Your task to perform on an android device: Open Google Chrome Image 0: 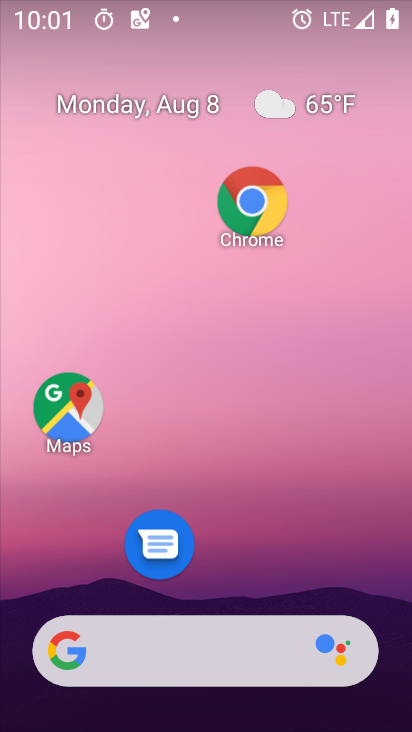
Step 0: drag from (218, 577) to (218, 27)
Your task to perform on an android device: Open Google Chrome Image 1: 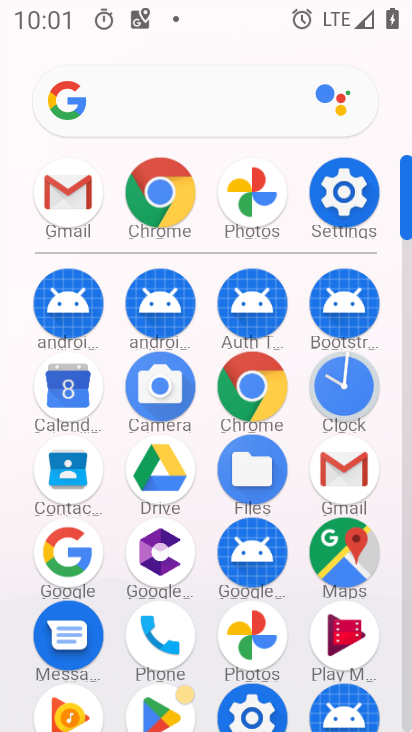
Step 1: click (247, 382)
Your task to perform on an android device: Open Google Chrome Image 2: 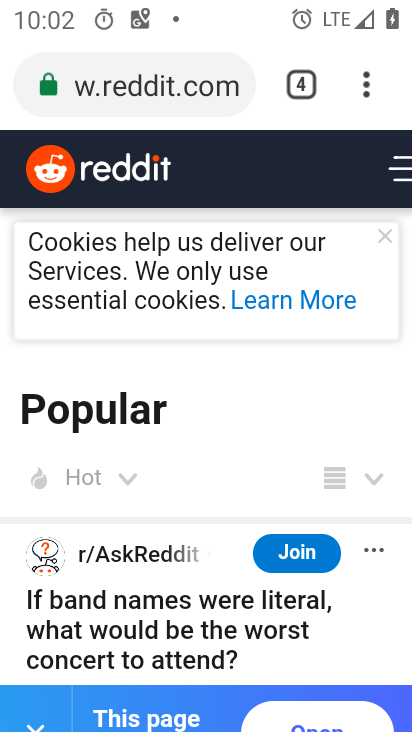
Step 2: drag from (202, 514) to (215, 287)
Your task to perform on an android device: Open Google Chrome Image 3: 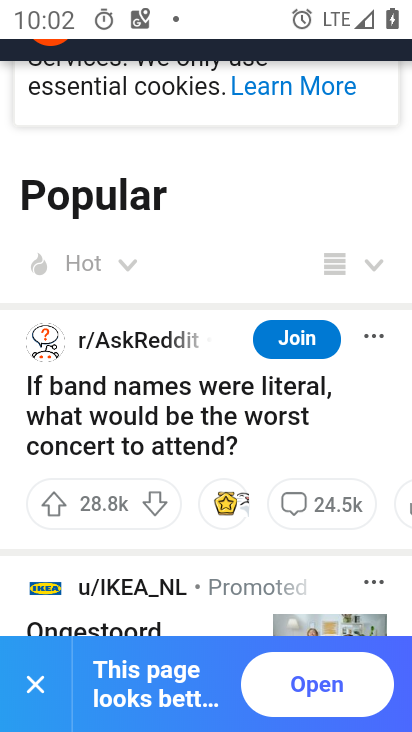
Step 3: drag from (311, 145) to (278, 482)
Your task to perform on an android device: Open Google Chrome Image 4: 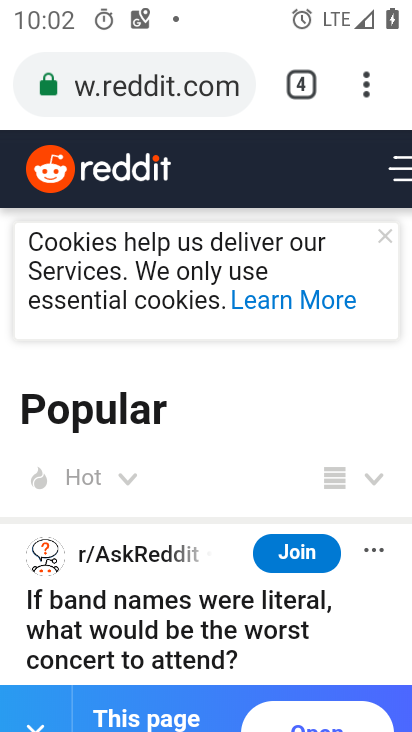
Step 4: click (302, 78)
Your task to perform on an android device: Open Google Chrome Image 5: 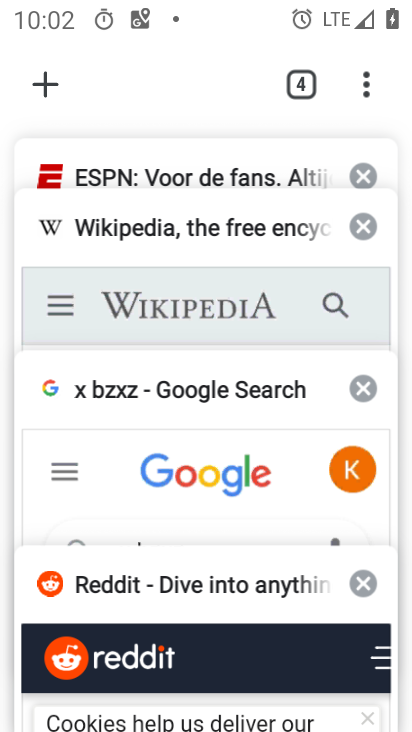
Step 5: click (39, 84)
Your task to perform on an android device: Open Google Chrome Image 6: 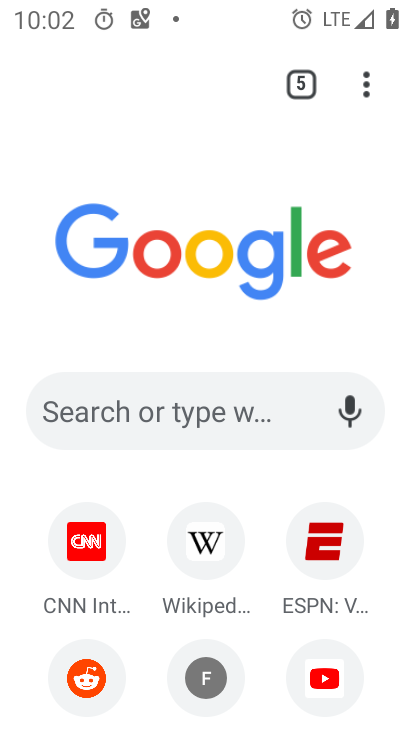
Step 6: task complete